Your task to perform on an android device: turn pop-ups off in chrome Image 0: 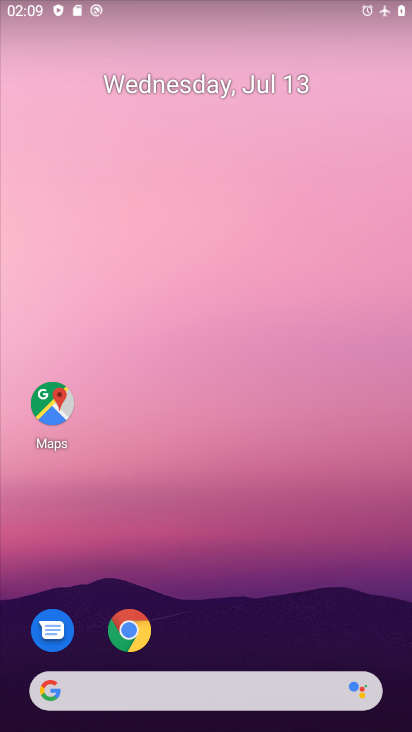
Step 0: click (147, 639)
Your task to perform on an android device: turn pop-ups off in chrome Image 1: 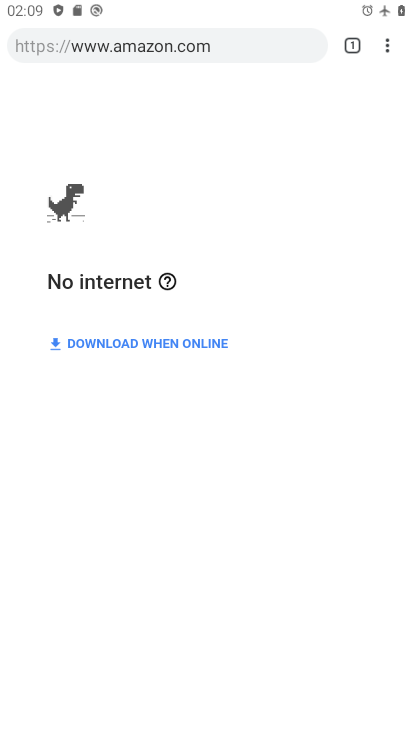
Step 1: click (384, 42)
Your task to perform on an android device: turn pop-ups off in chrome Image 2: 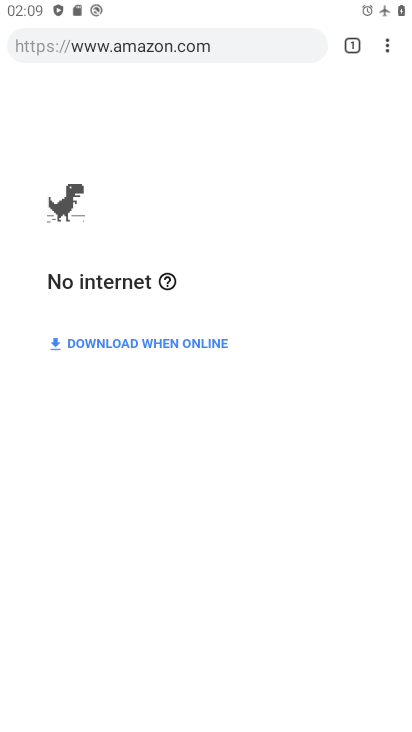
Step 2: drag from (384, 42) to (274, 496)
Your task to perform on an android device: turn pop-ups off in chrome Image 3: 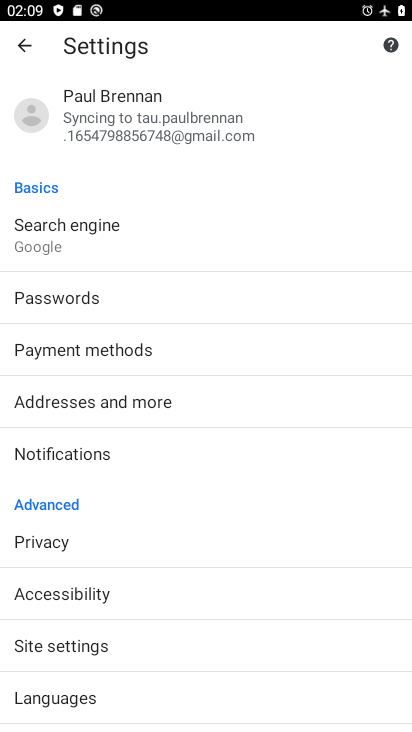
Step 3: click (126, 637)
Your task to perform on an android device: turn pop-ups off in chrome Image 4: 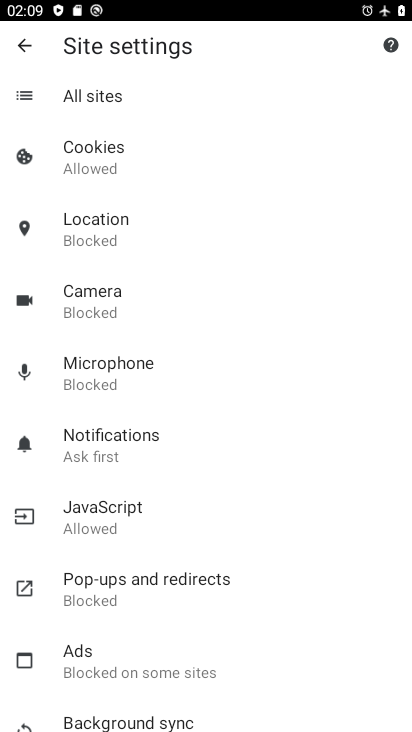
Step 4: click (153, 588)
Your task to perform on an android device: turn pop-ups off in chrome Image 5: 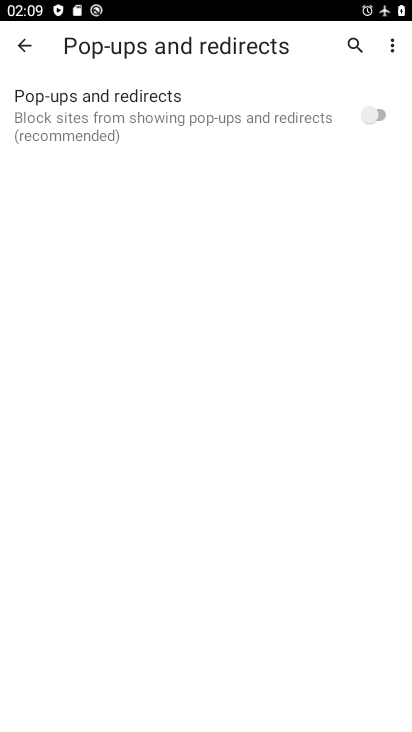
Step 5: click (374, 122)
Your task to perform on an android device: turn pop-ups off in chrome Image 6: 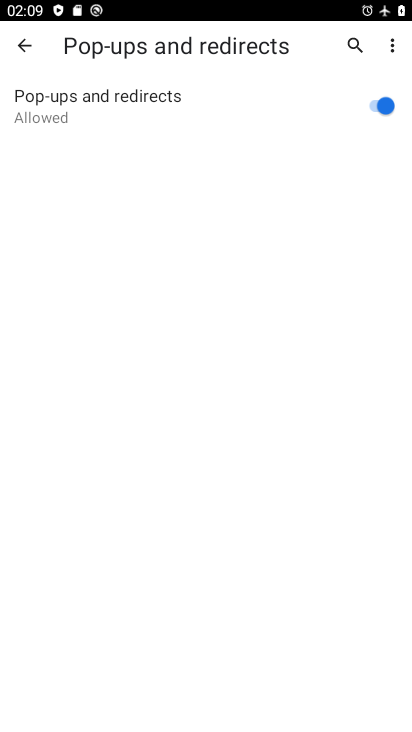
Step 6: click (368, 106)
Your task to perform on an android device: turn pop-ups off in chrome Image 7: 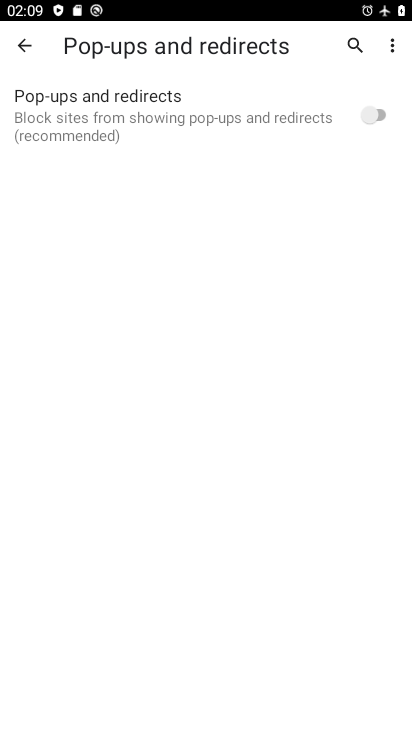
Step 7: task complete